Your task to perform on an android device: see tabs open on other devices in the chrome app Image 0: 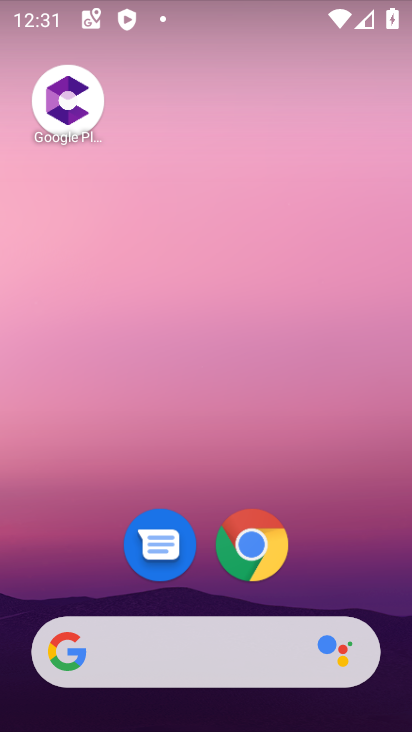
Step 0: click (257, 547)
Your task to perform on an android device: see tabs open on other devices in the chrome app Image 1: 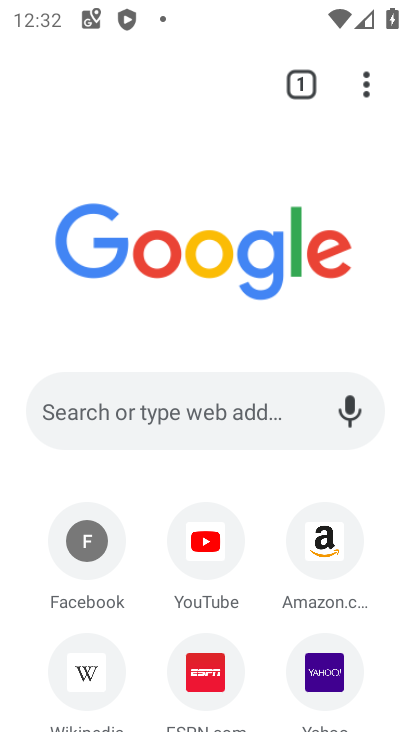
Step 1: click (378, 96)
Your task to perform on an android device: see tabs open on other devices in the chrome app Image 2: 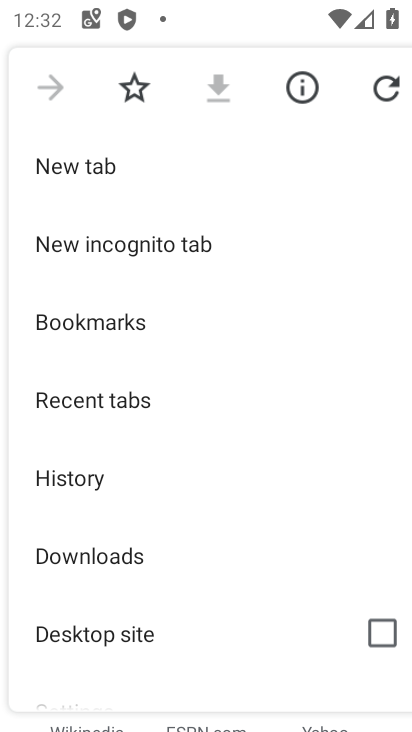
Step 2: click (124, 413)
Your task to perform on an android device: see tabs open on other devices in the chrome app Image 3: 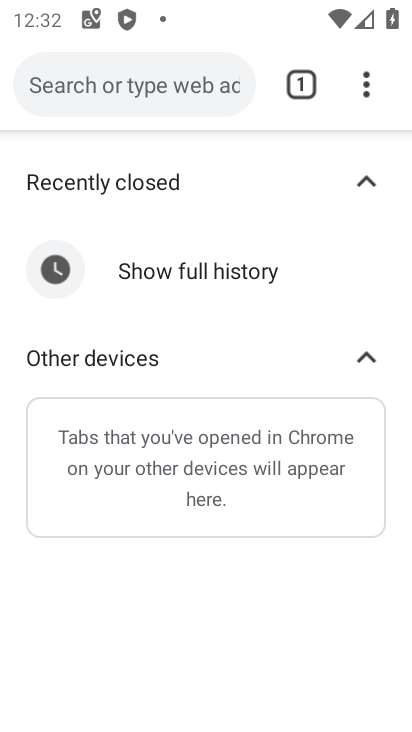
Step 3: task complete